Your task to perform on an android device: Go to accessibility settings Image 0: 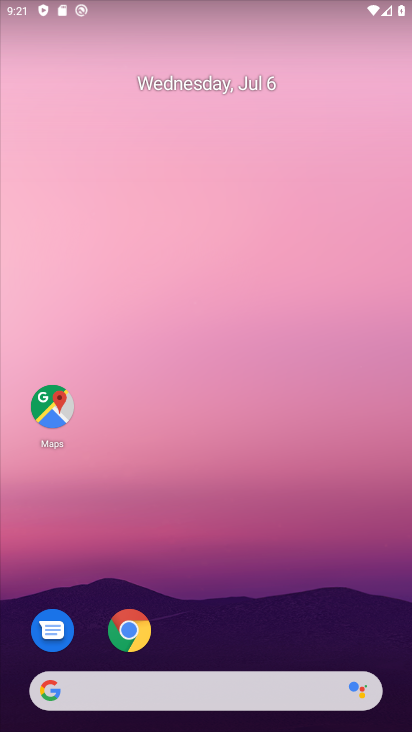
Step 0: drag from (361, 621) to (340, 59)
Your task to perform on an android device: Go to accessibility settings Image 1: 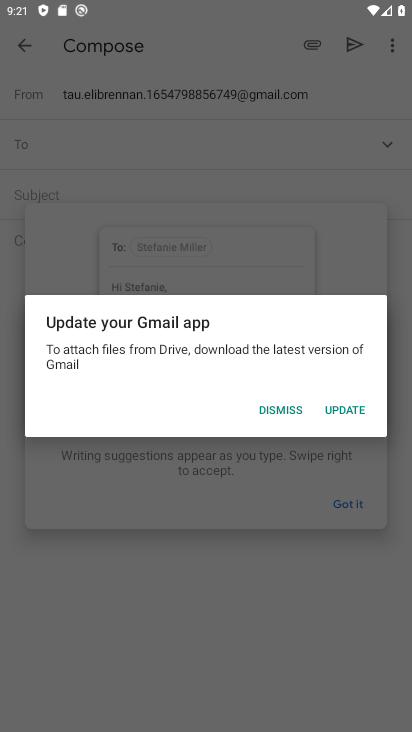
Step 1: press home button
Your task to perform on an android device: Go to accessibility settings Image 2: 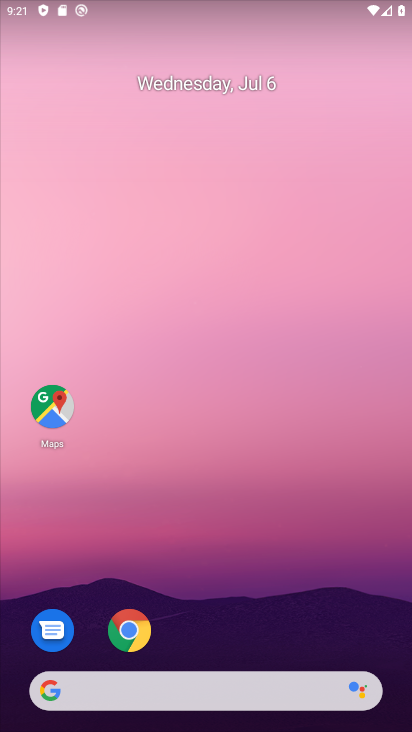
Step 2: drag from (359, 638) to (311, 210)
Your task to perform on an android device: Go to accessibility settings Image 3: 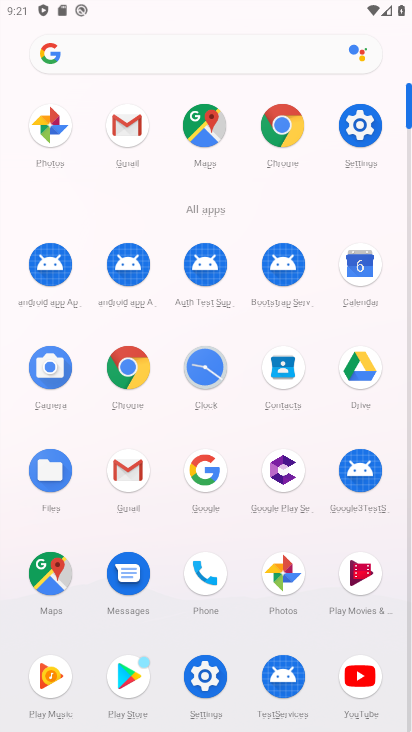
Step 3: click (204, 677)
Your task to perform on an android device: Go to accessibility settings Image 4: 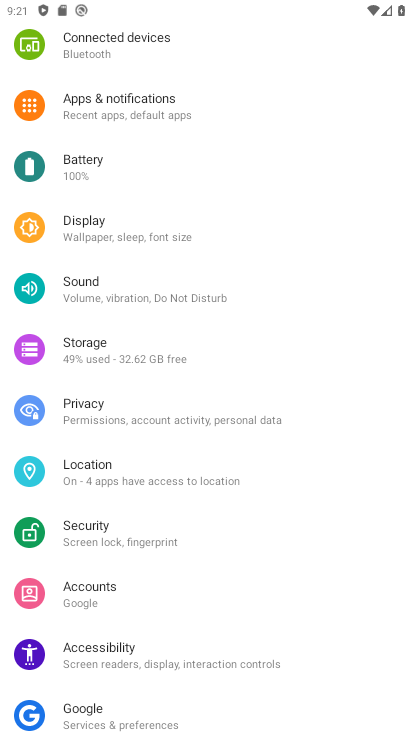
Step 4: click (93, 645)
Your task to perform on an android device: Go to accessibility settings Image 5: 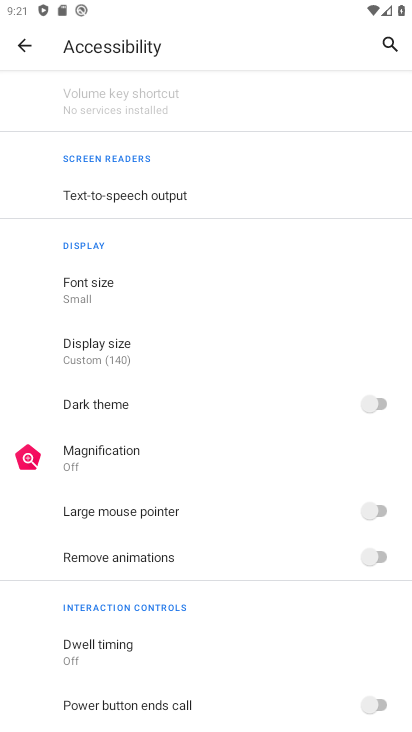
Step 5: task complete